Your task to perform on an android device: Search for Mexican restaurants on Maps Image 0: 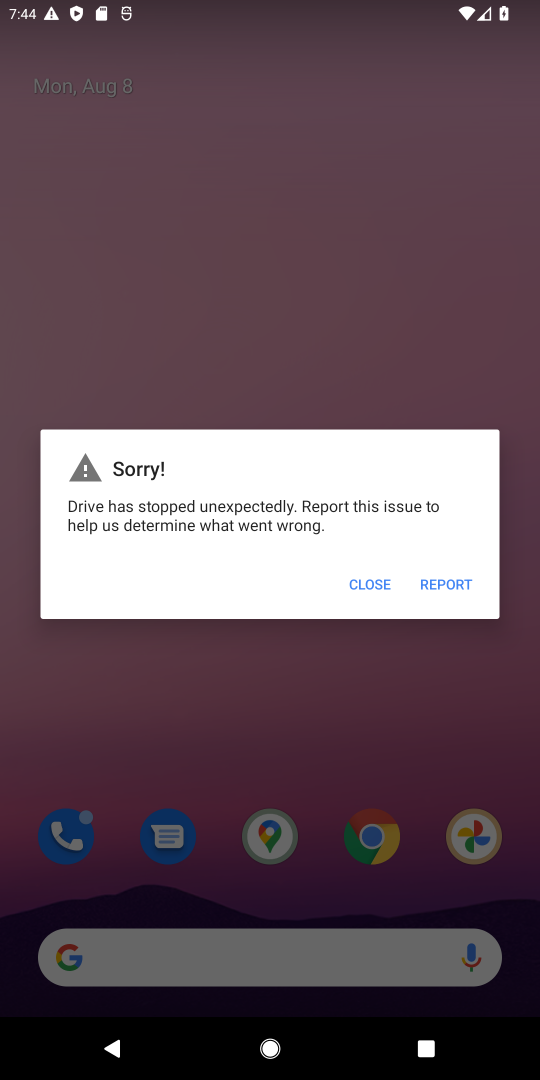
Step 0: click (377, 583)
Your task to perform on an android device: Search for Mexican restaurants on Maps Image 1: 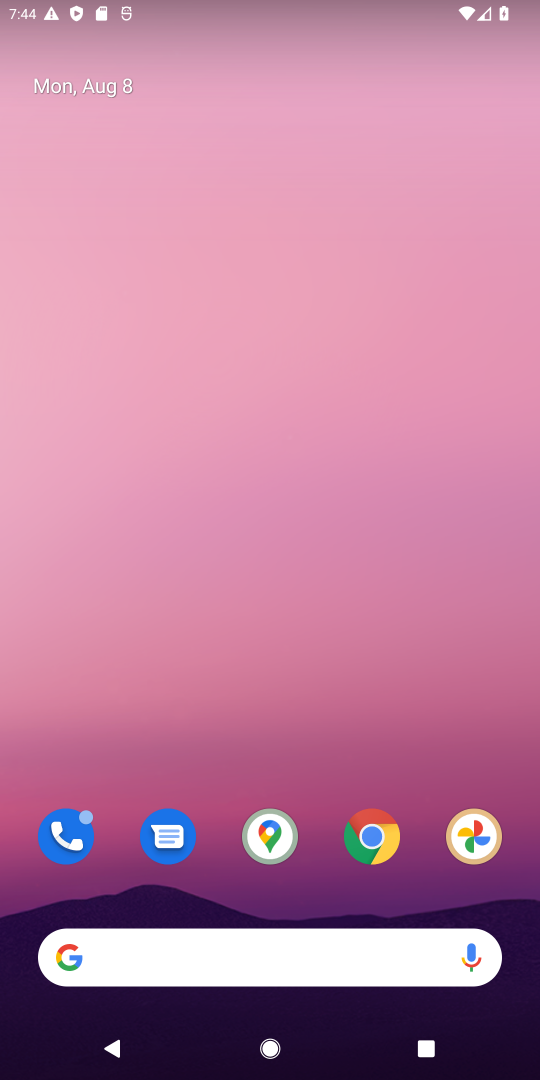
Step 1: click (280, 838)
Your task to perform on an android device: Search for Mexican restaurants on Maps Image 2: 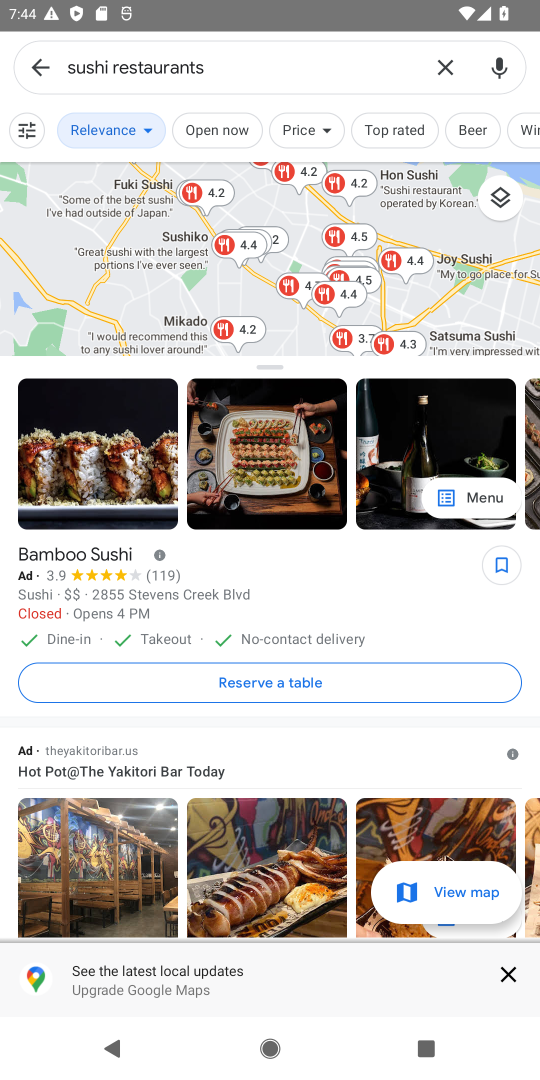
Step 2: click (441, 69)
Your task to perform on an android device: Search for Mexican restaurants on Maps Image 3: 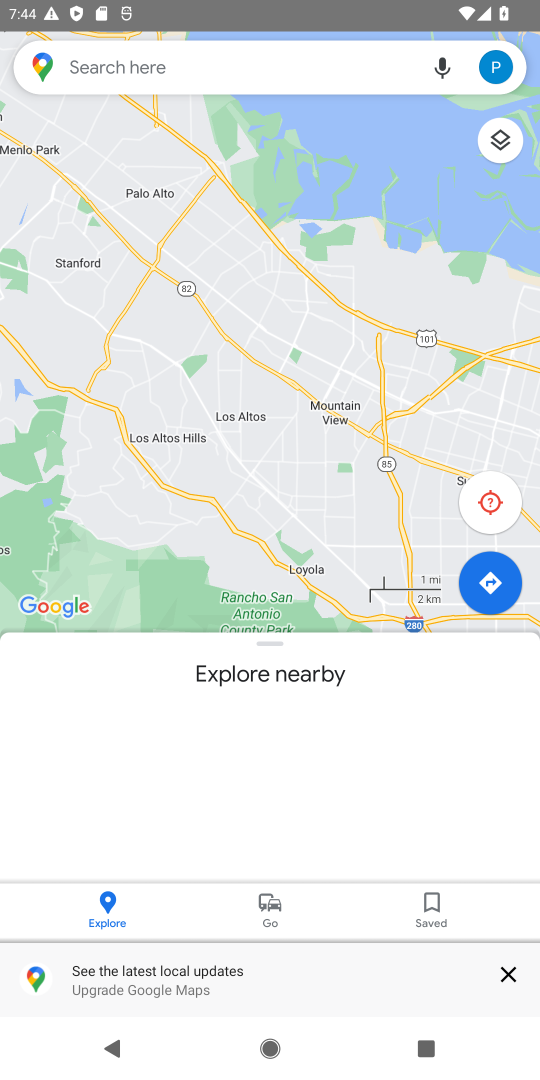
Step 3: click (363, 75)
Your task to perform on an android device: Search for Mexican restaurants on Maps Image 4: 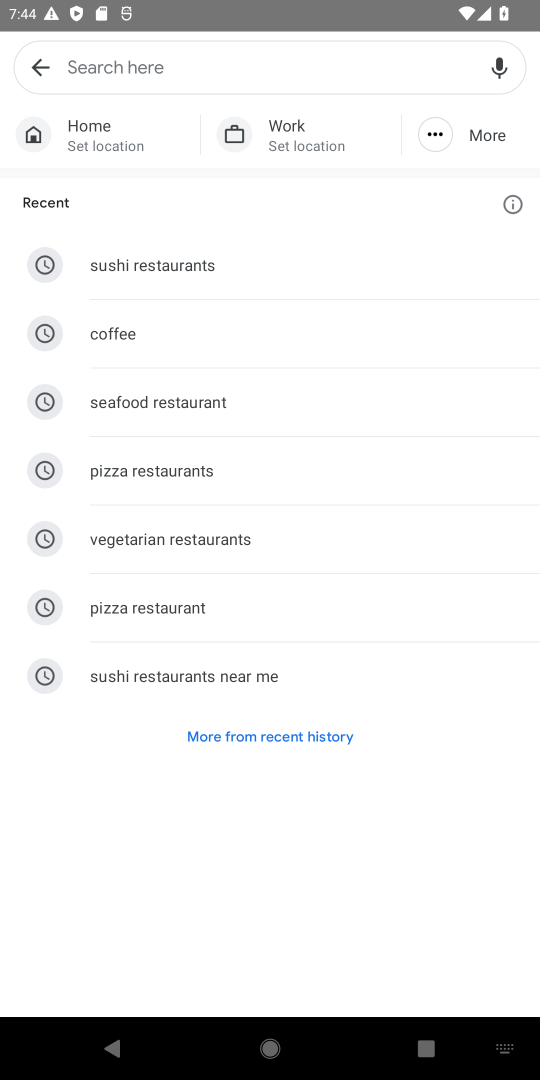
Step 4: type "Mexican restaurants"
Your task to perform on an android device: Search for Mexican restaurants on Maps Image 5: 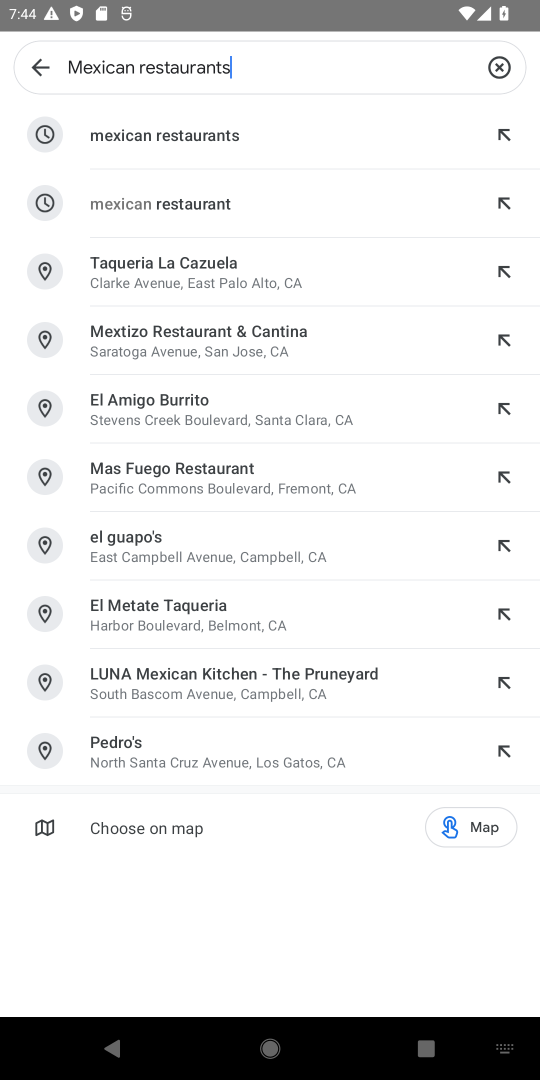
Step 5: click (210, 154)
Your task to perform on an android device: Search for Mexican restaurants on Maps Image 6: 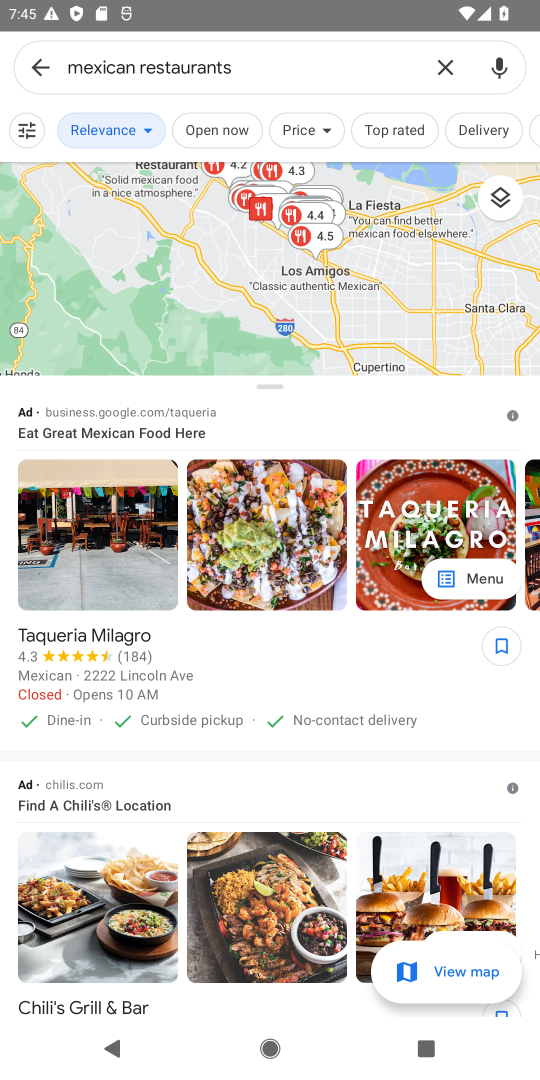
Step 6: task complete